Your task to perform on an android device: change the upload size in google photos Image 0: 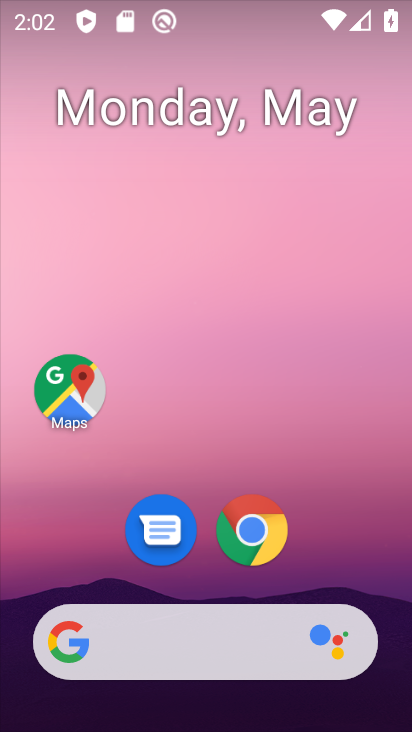
Step 0: drag from (200, 457) to (241, 147)
Your task to perform on an android device: change the upload size in google photos Image 1: 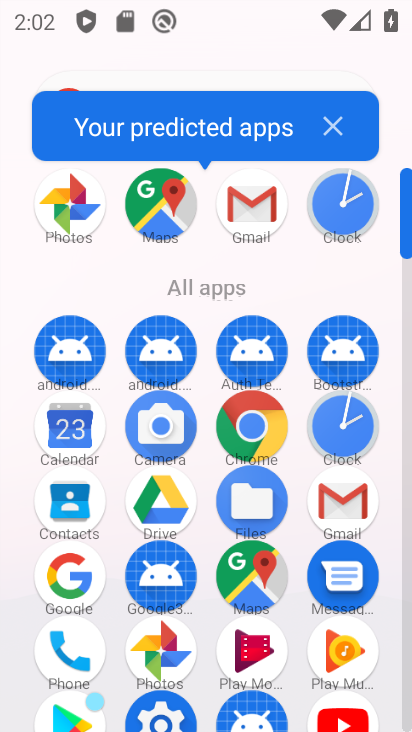
Step 1: click (172, 644)
Your task to perform on an android device: change the upload size in google photos Image 2: 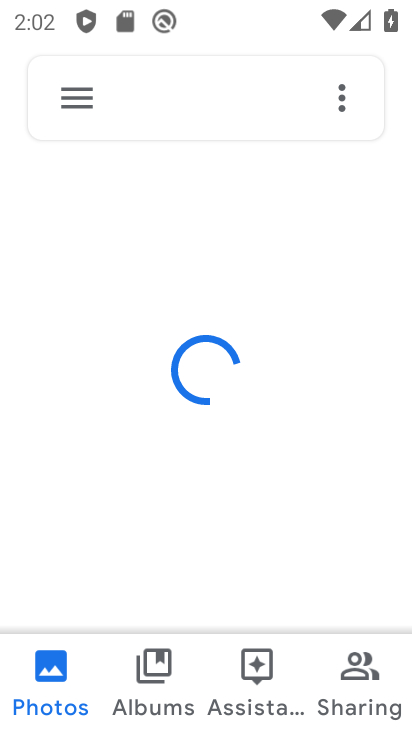
Step 2: click (56, 96)
Your task to perform on an android device: change the upload size in google photos Image 3: 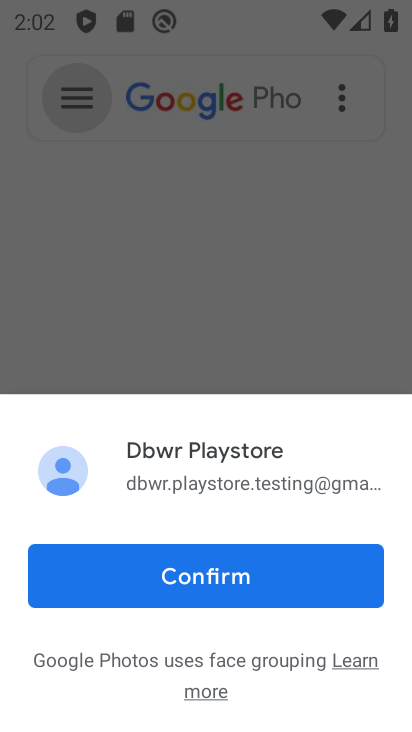
Step 3: click (211, 568)
Your task to perform on an android device: change the upload size in google photos Image 4: 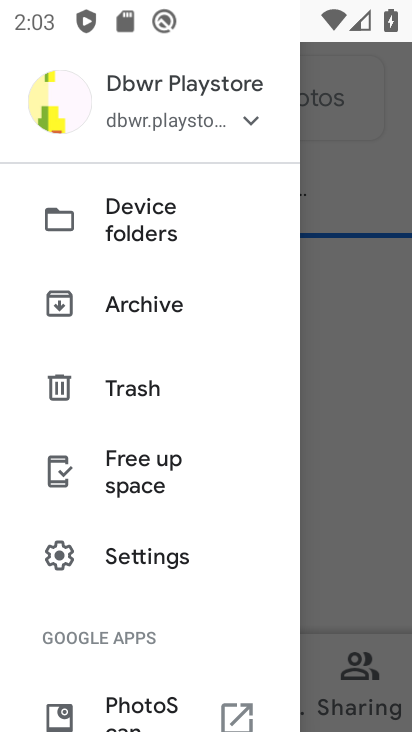
Step 4: click (109, 555)
Your task to perform on an android device: change the upload size in google photos Image 5: 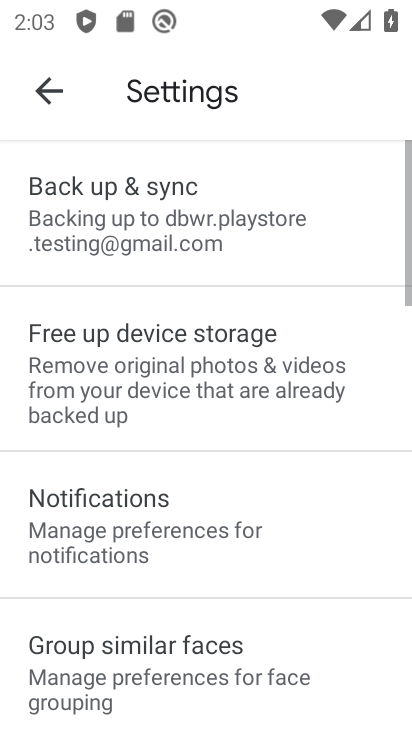
Step 5: click (119, 201)
Your task to perform on an android device: change the upload size in google photos Image 6: 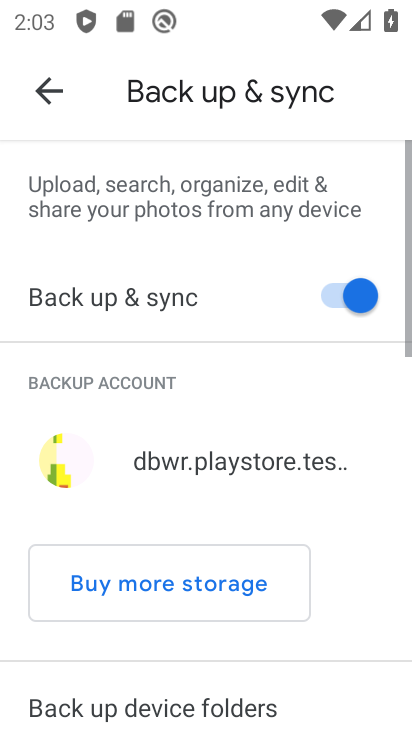
Step 6: drag from (142, 659) to (250, 152)
Your task to perform on an android device: change the upload size in google photos Image 7: 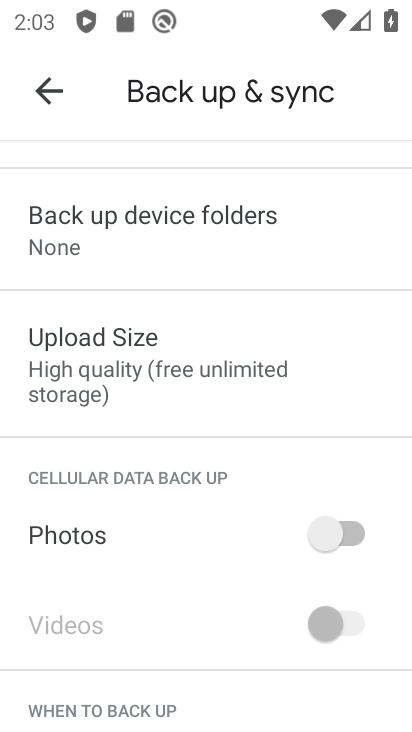
Step 7: click (154, 363)
Your task to perform on an android device: change the upload size in google photos Image 8: 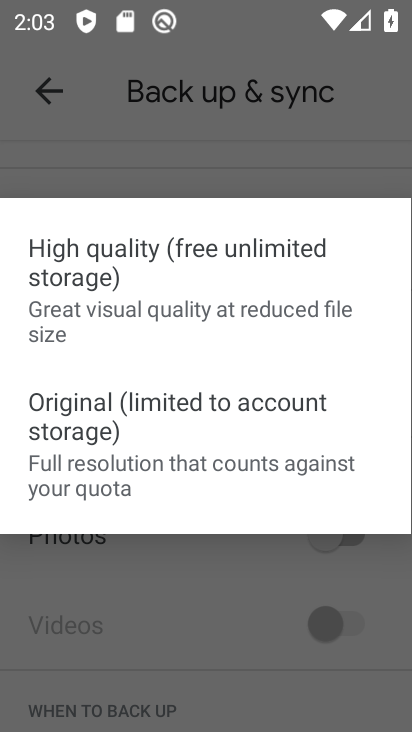
Step 8: click (103, 440)
Your task to perform on an android device: change the upload size in google photos Image 9: 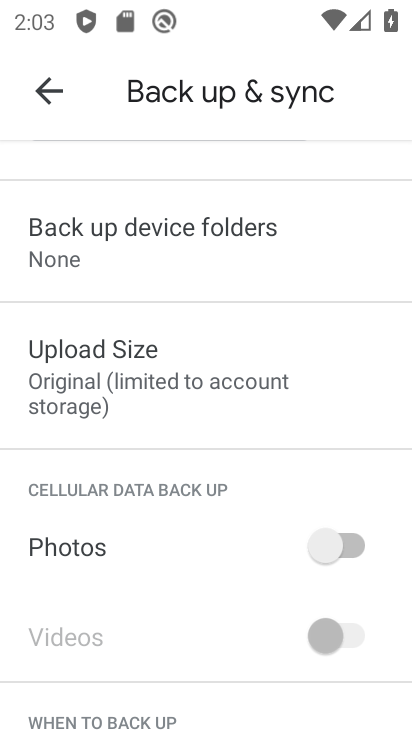
Step 9: task complete